Your task to perform on an android device: change notifications settings Image 0: 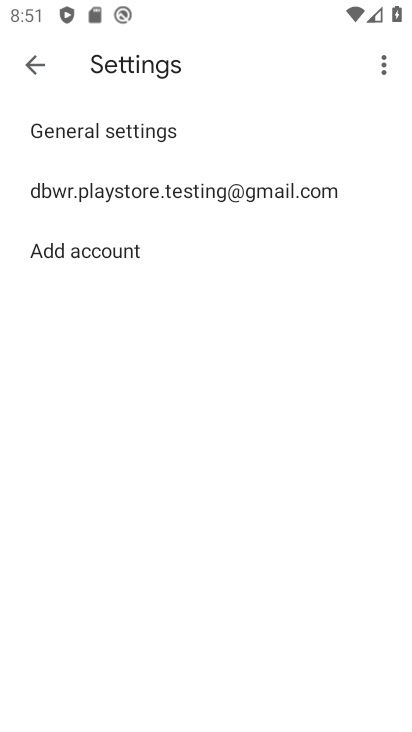
Step 0: press home button
Your task to perform on an android device: change notifications settings Image 1: 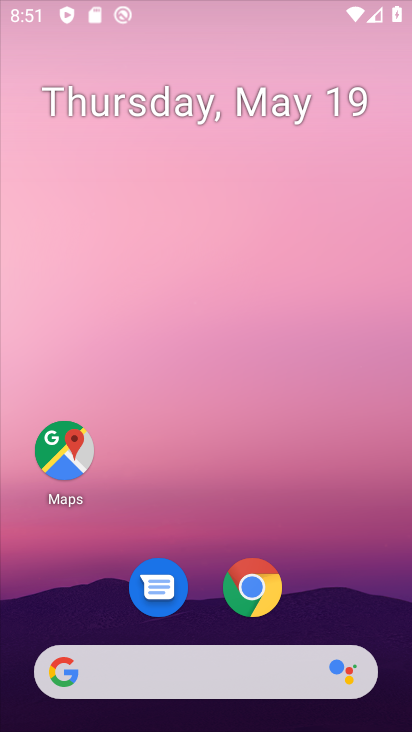
Step 1: drag from (341, 474) to (272, 107)
Your task to perform on an android device: change notifications settings Image 2: 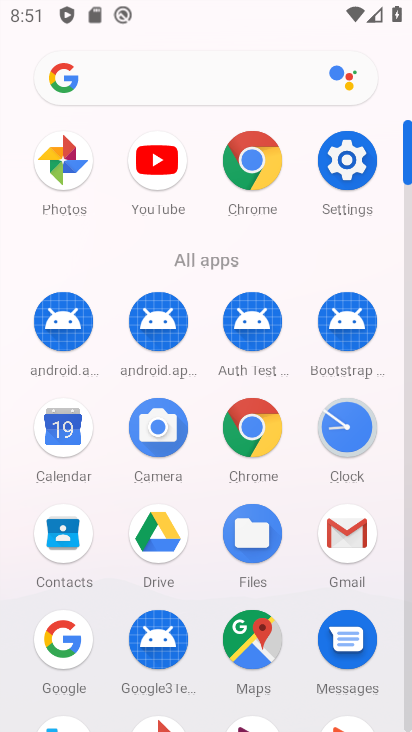
Step 2: click (358, 129)
Your task to perform on an android device: change notifications settings Image 3: 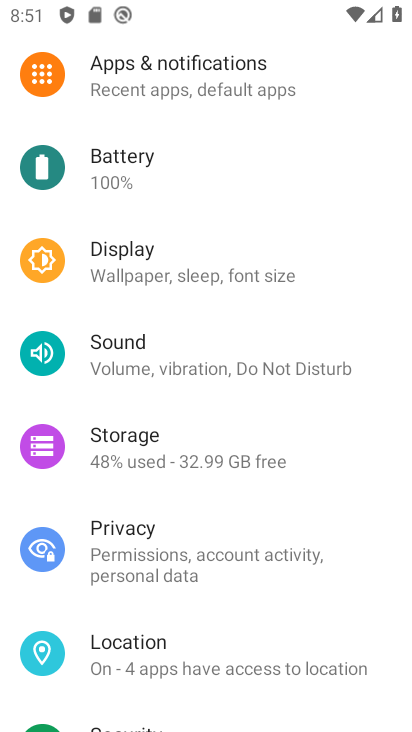
Step 3: click (186, 84)
Your task to perform on an android device: change notifications settings Image 4: 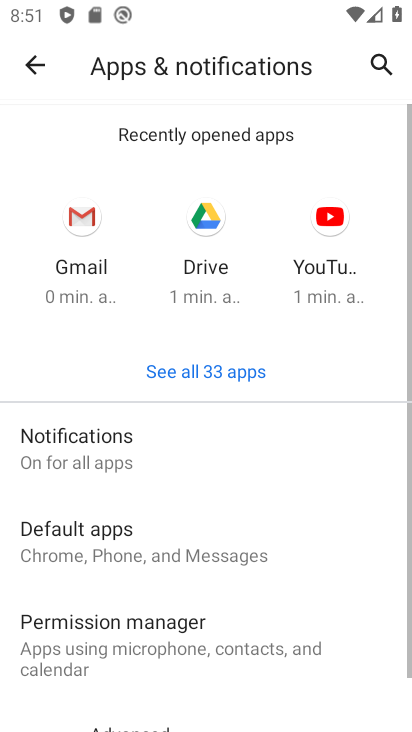
Step 4: drag from (201, 519) to (271, 181)
Your task to perform on an android device: change notifications settings Image 5: 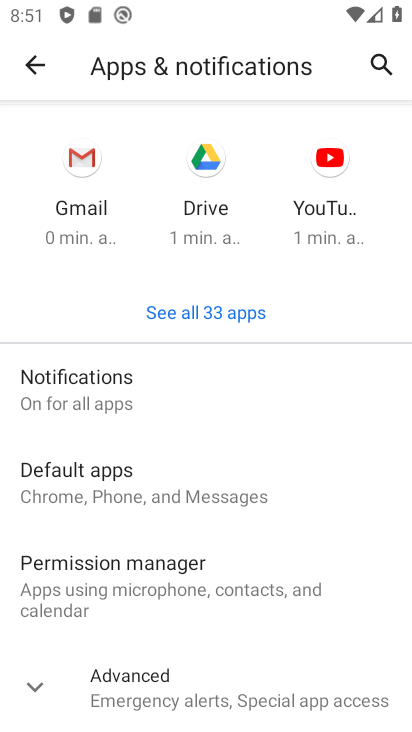
Step 5: click (90, 378)
Your task to perform on an android device: change notifications settings Image 6: 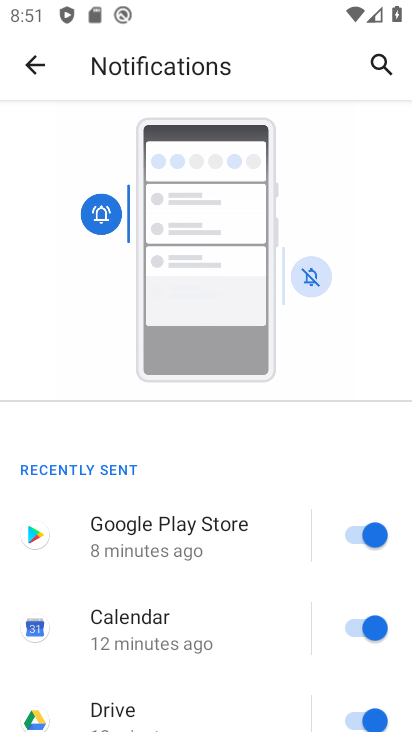
Step 6: drag from (237, 581) to (282, 139)
Your task to perform on an android device: change notifications settings Image 7: 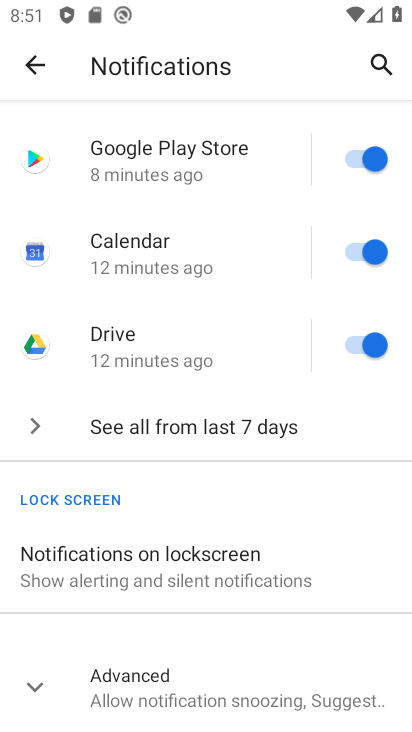
Step 7: click (217, 707)
Your task to perform on an android device: change notifications settings Image 8: 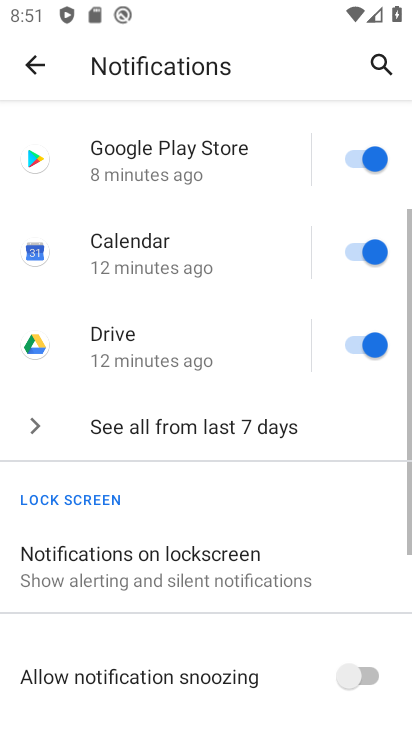
Step 8: drag from (215, 658) to (231, 378)
Your task to perform on an android device: change notifications settings Image 9: 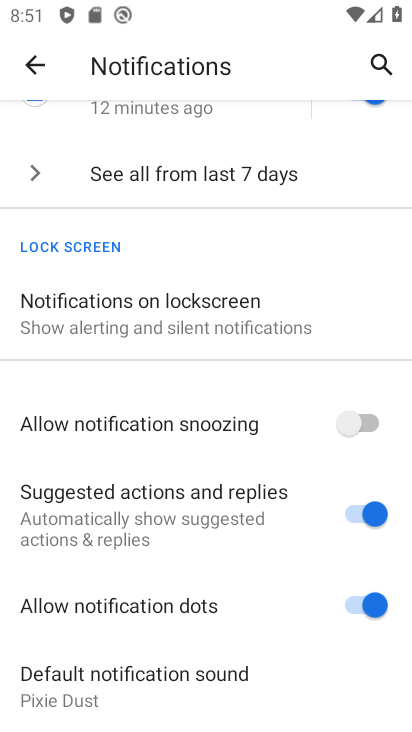
Step 9: click (367, 415)
Your task to perform on an android device: change notifications settings Image 10: 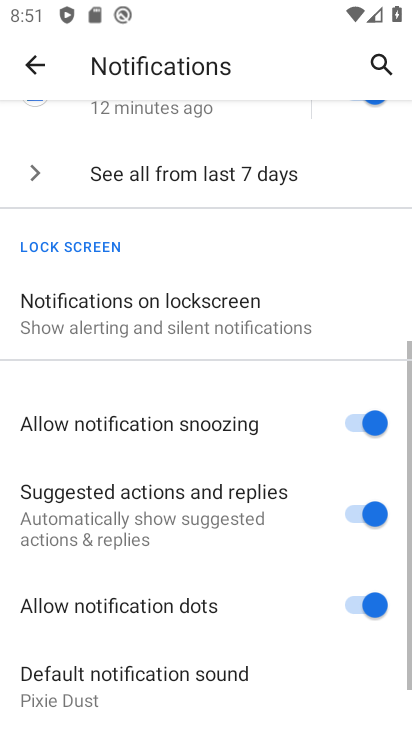
Step 10: task complete